Your task to perform on an android device: What's the weather today? Image 0: 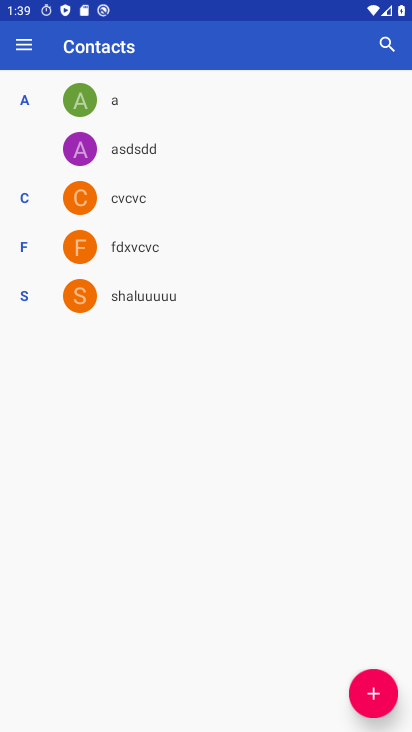
Step 0: press home button
Your task to perform on an android device: What's the weather today? Image 1: 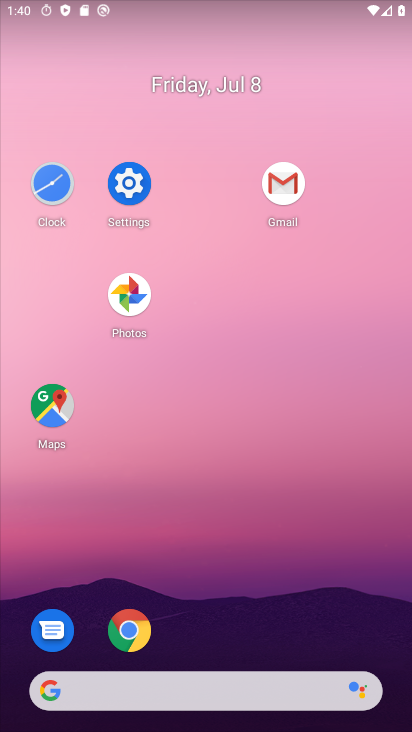
Step 1: drag from (225, 605) to (304, 85)
Your task to perform on an android device: What's the weather today? Image 2: 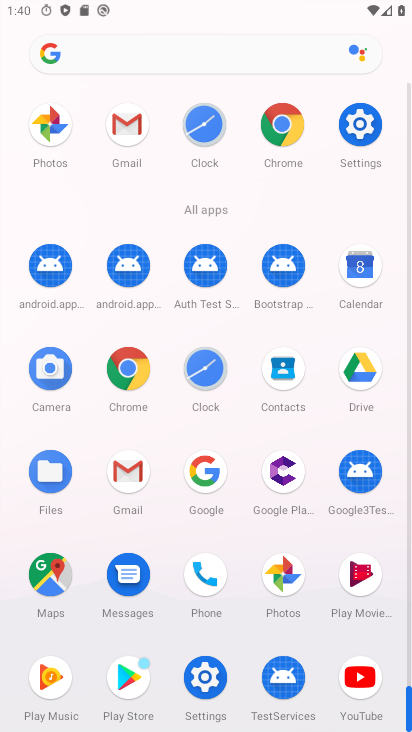
Step 2: drag from (211, 472) to (80, 313)
Your task to perform on an android device: What's the weather today? Image 3: 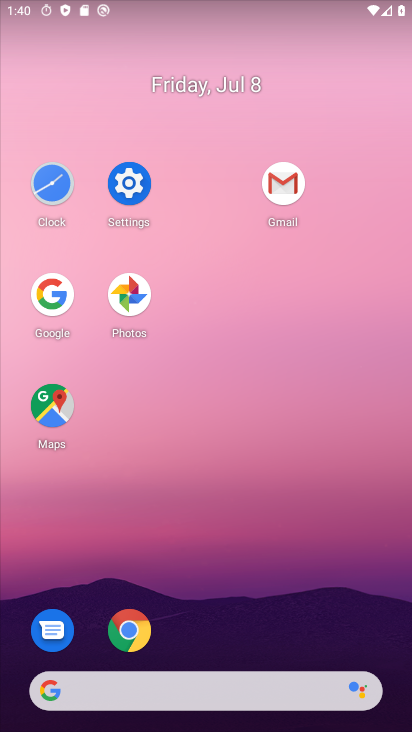
Step 3: click (57, 289)
Your task to perform on an android device: What's the weather today? Image 4: 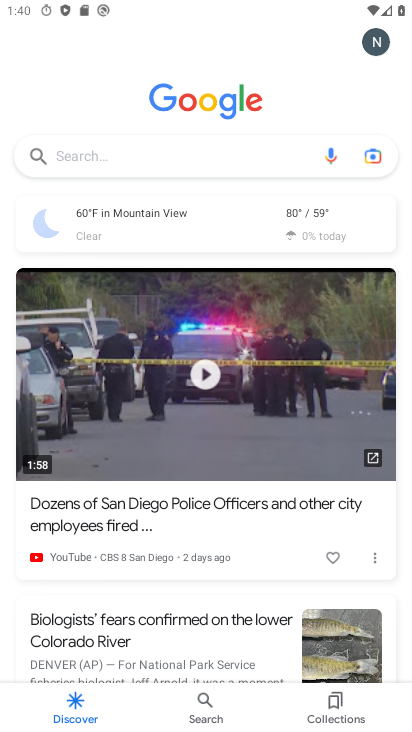
Step 4: click (165, 216)
Your task to perform on an android device: What's the weather today? Image 5: 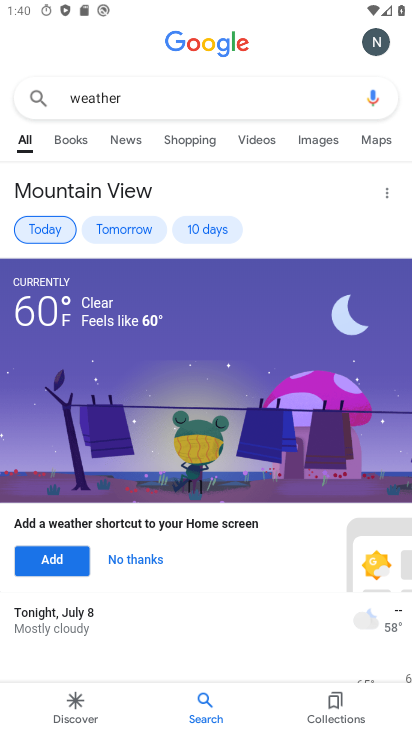
Step 5: task complete